Your task to perform on an android device: add a label to a message in the gmail app Image 0: 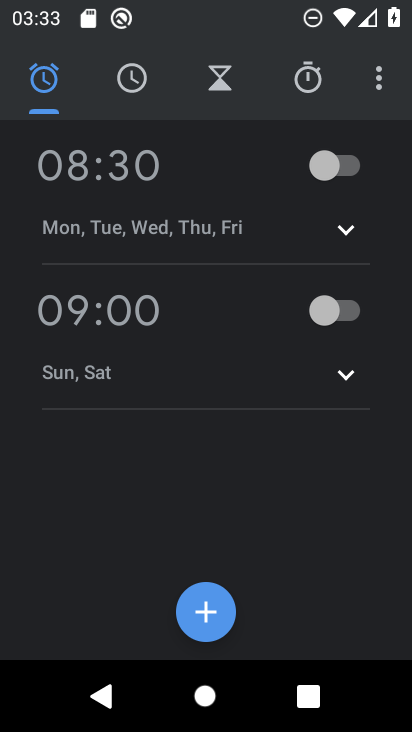
Step 0: press back button
Your task to perform on an android device: add a label to a message in the gmail app Image 1: 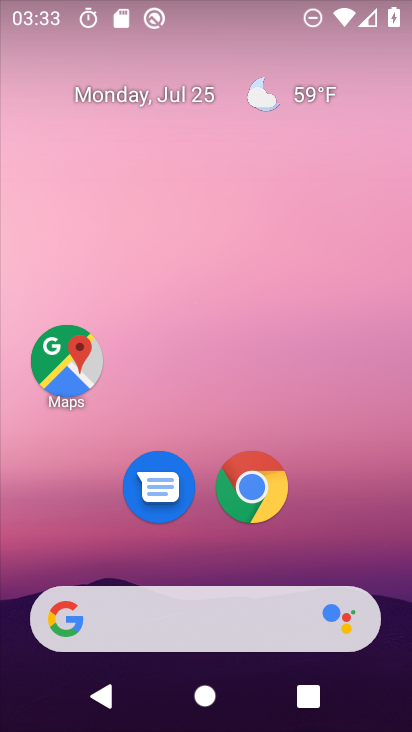
Step 1: drag from (91, 539) to (227, 1)
Your task to perform on an android device: add a label to a message in the gmail app Image 2: 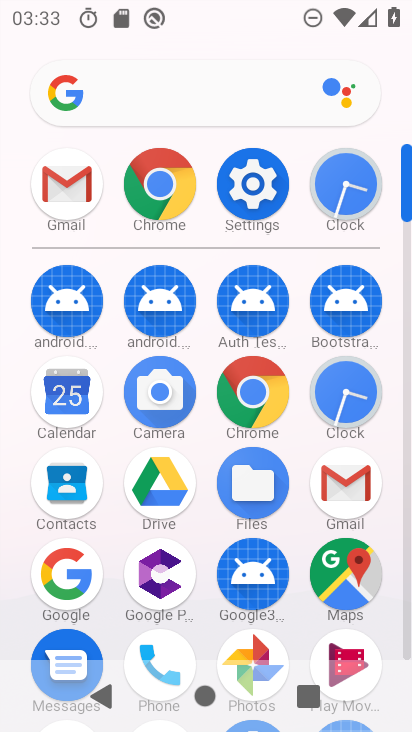
Step 2: click (67, 183)
Your task to perform on an android device: add a label to a message in the gmail app Image 3: 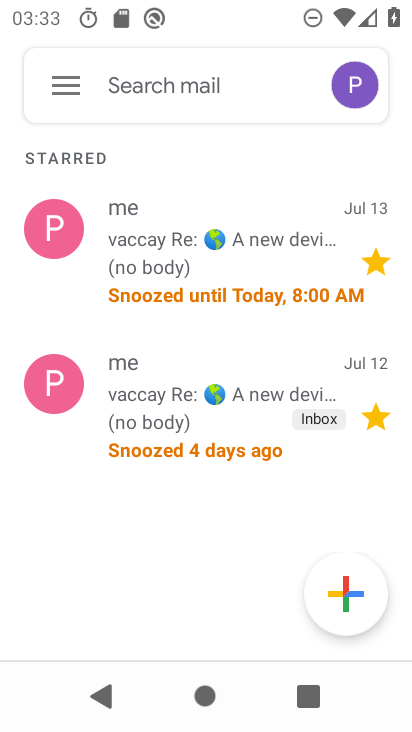
Step 3: click (171, 238)
Your task to perform on an android device: add a label to a message in the gmail app Image 4: 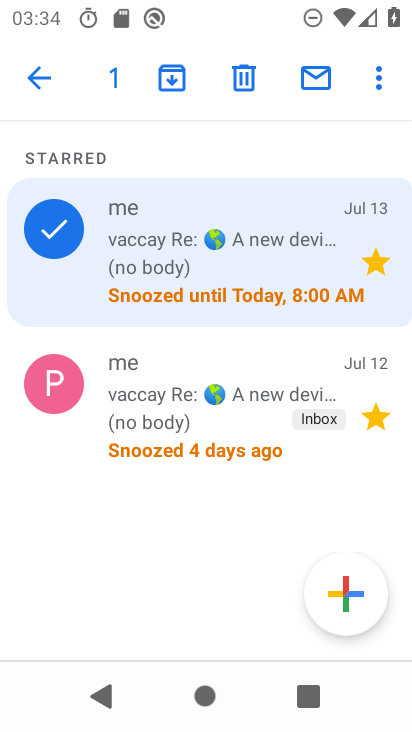
Step 4: click (383, 73)
Your task to perform on an android device: add a label to a message in the gmail app Image 5: 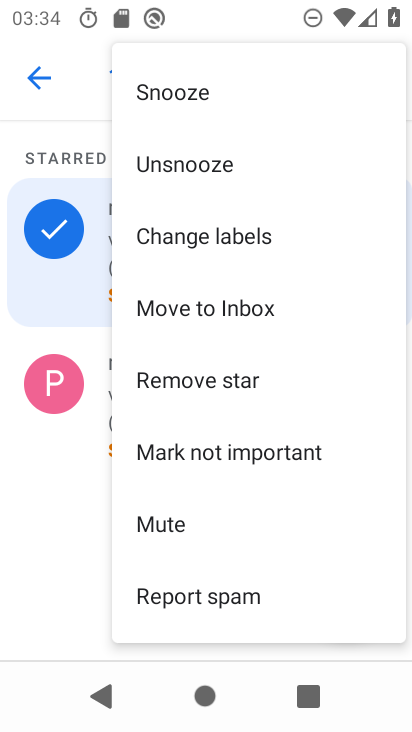
Step 5: click (183, 245)
Your task to perform on an android device: add a label to a message in the gmail app Image 6: 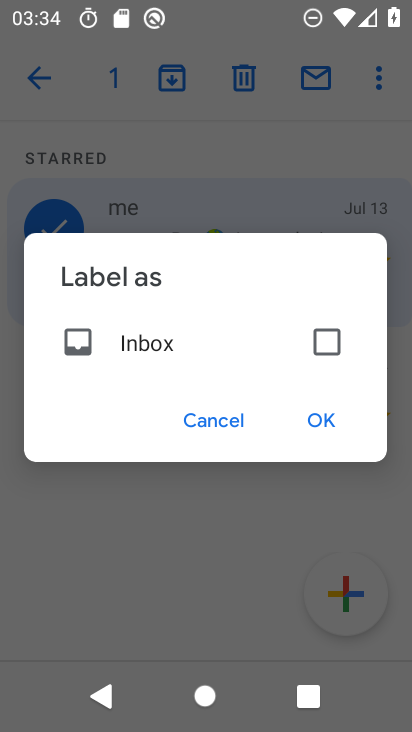
Step 6: click (298, 336)
Your task to perform on an android device: add a label to a message in the gmail app Image 7: 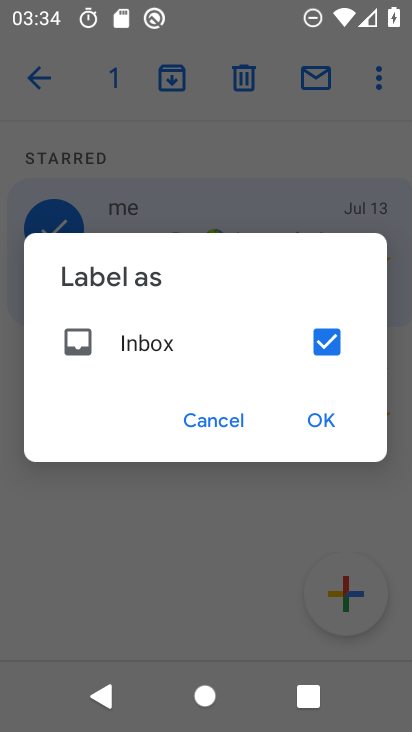
Step 7: click (311, 417)
Your task to perform on an android device: add a label to a message in the gmail app Image 8: 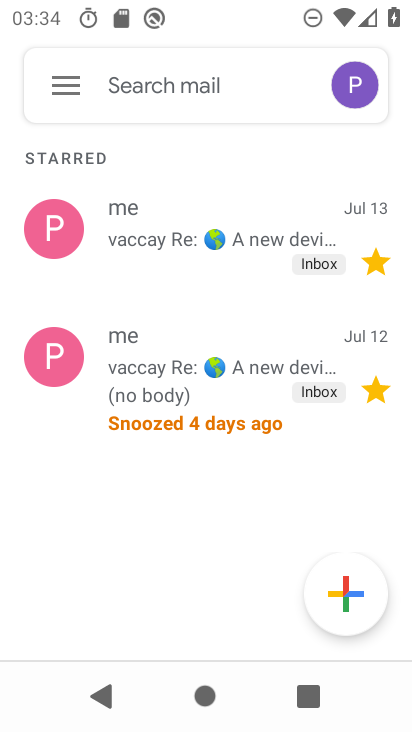
Step 8: task complete